Your task to perform on an android device: Search for razer kraken on target, select the first entry, add it to the cart, then select checkout. Image 0: 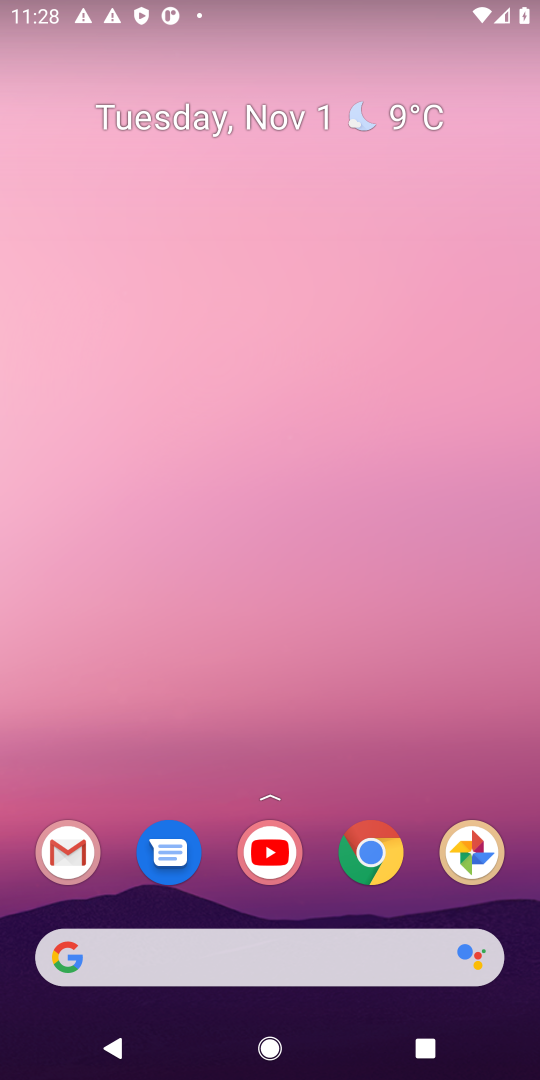
Step 0: drag from (323, 875) to (377, 364)
Your task to perform on an android device: Search for razer kraken on target, select the first entry, add it to the cart, then select checkout. Image 1: 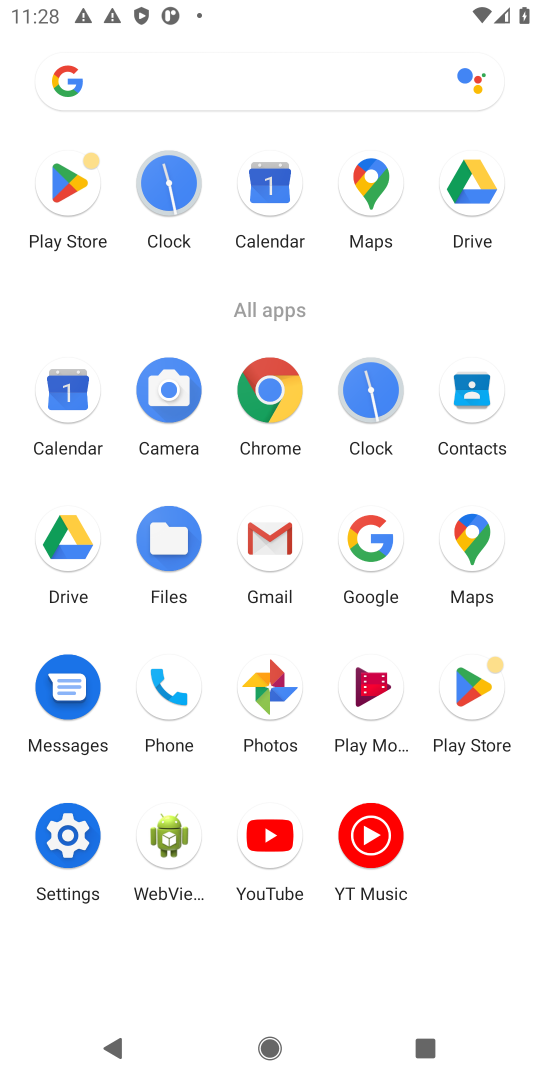
Step 1: click (373, 541)
Your task to perform on an android device: Search for razer kraken on target, select the first entry, add it to the cart, then select checkout. Image 2: 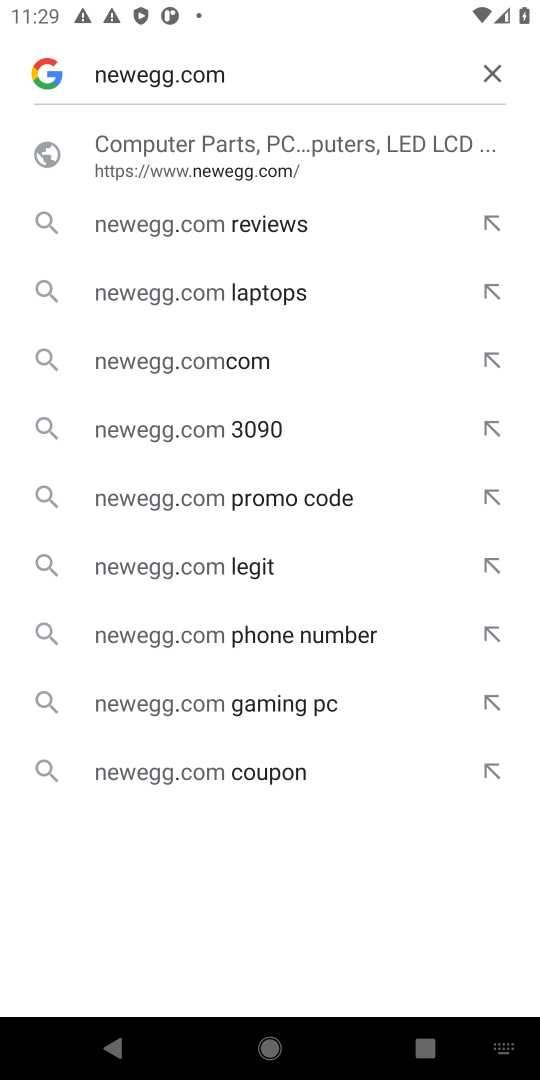
Step 2: click (481, 68)
Your task to perform on an android device: Search for razer kraken on target, select the first entry, add it to the cart, then select checkout. Image 3: 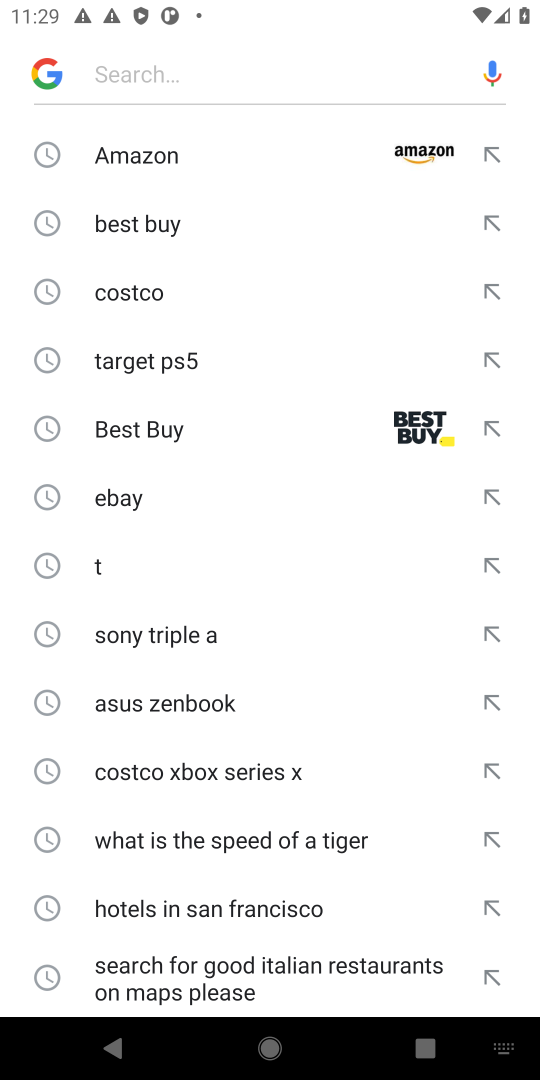
Step 3: type "target"
Your task to perform on an android device: Search for razer kraken on target, select the first entry, add it to the cart, then select checkout. Image 4: 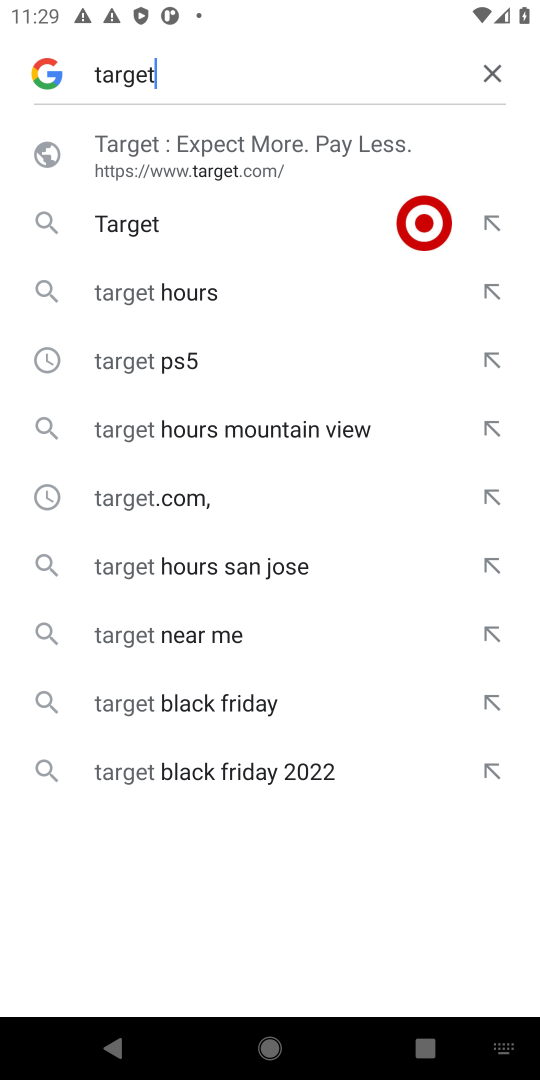
Step 4: click (317, 165)
Your task to perform on an android device: Search for razer kraken on target, select the first entry, add it to the cart, then select checkout. Image 5: 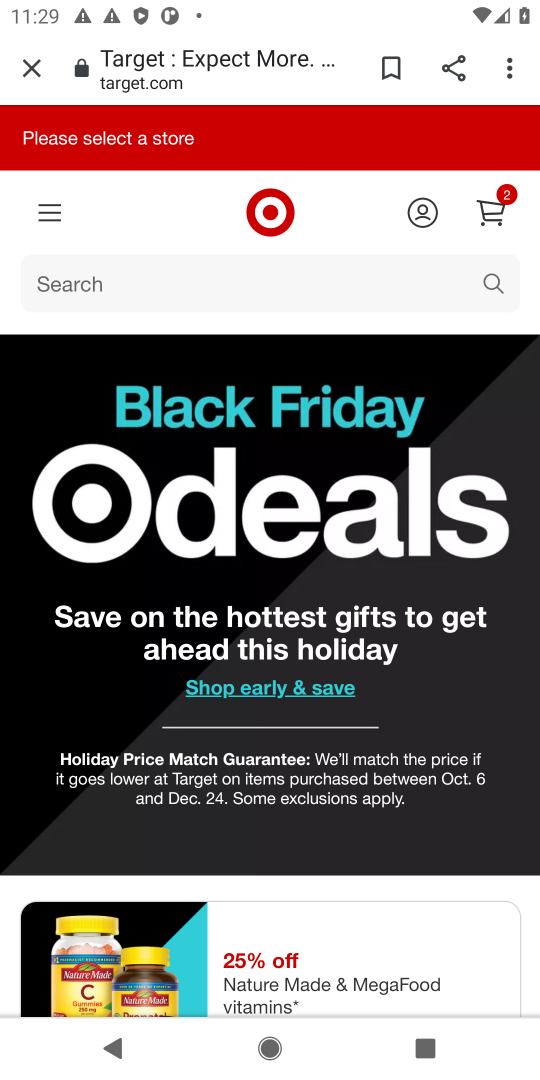
Step 5: click (189, 302)
Your task to perform on an android device: Search for razer kraken on target, select the first entry, add it to the cart, then select checkout. Image 6: 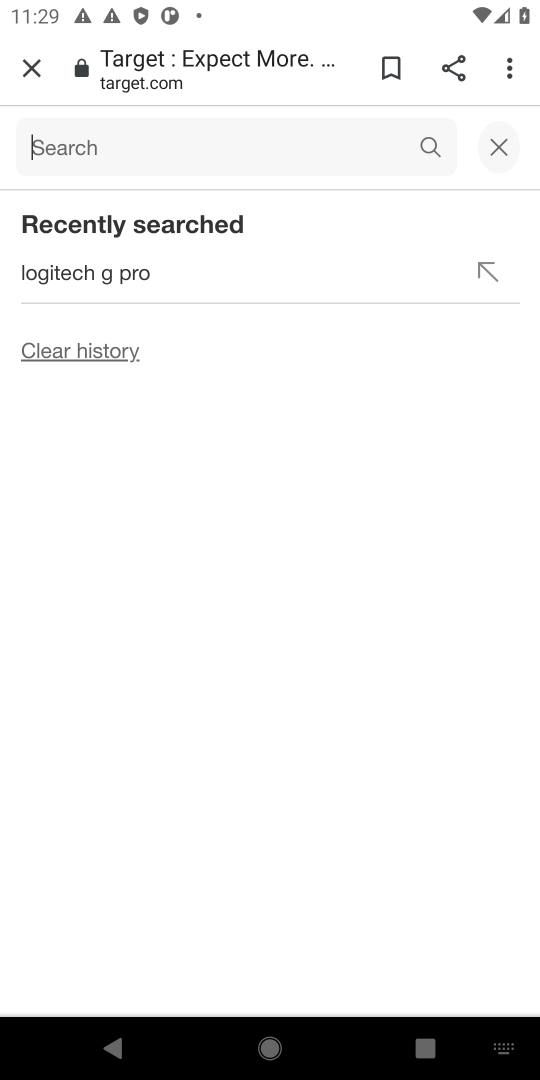
Step 6: type "razer kraken"
Your task to perform on an android device: Search for razer kraken on target, select the first entry, add it to the cart, then select checkout. Image 7: 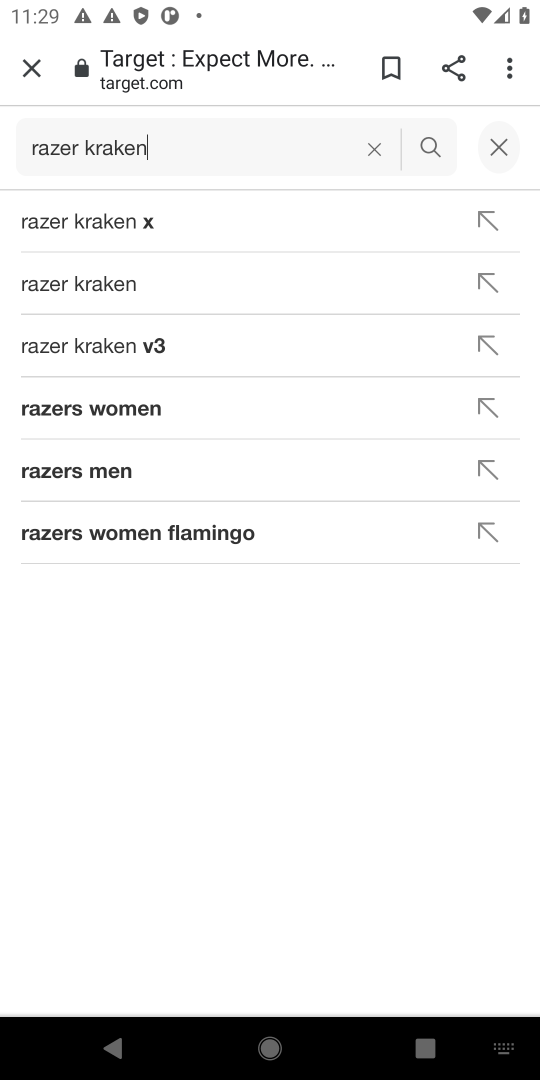
Step 7: click (126, 281)
Your task to perform on an android device: Search for razer kraken on target, select the first entry, add it to the cart, then select checkout. Image 8: 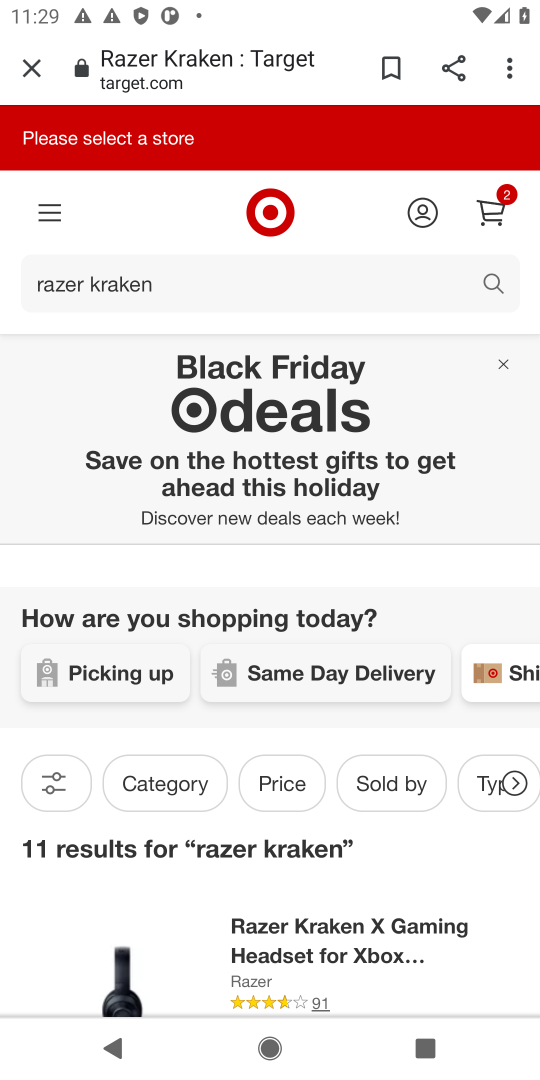
Step 8: drag from (216, 930) to (277, 396)
Your task to perform on an android device: Search for razer kraken on target, select the first entry, add it to the cart, then select checkout. Image 9: 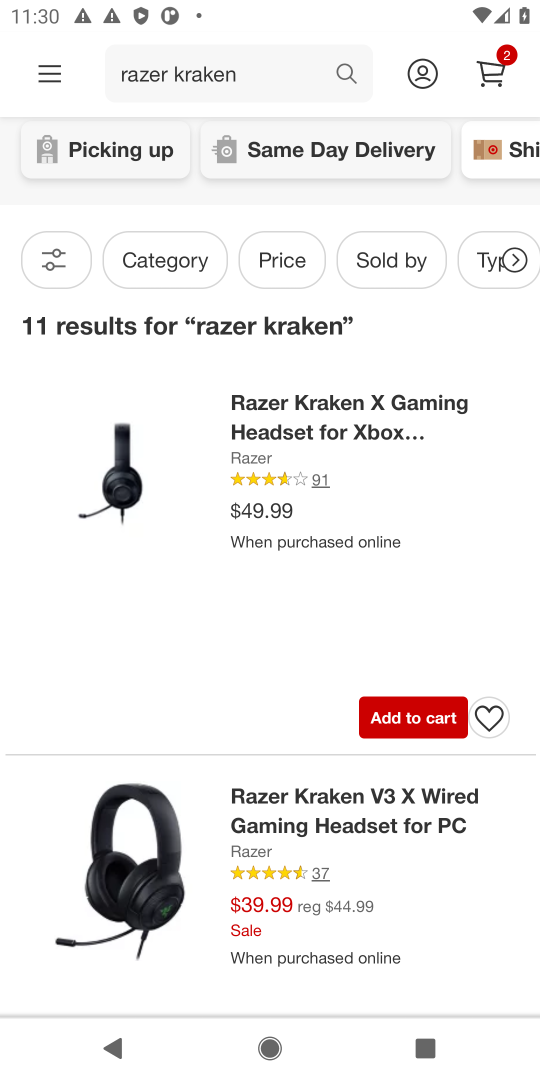
Step 9: click (293, 420)
Your task to perform on an android device: Search for razer kraken on target, select the first entry, add it to the cart, then select checkout. Image 10: 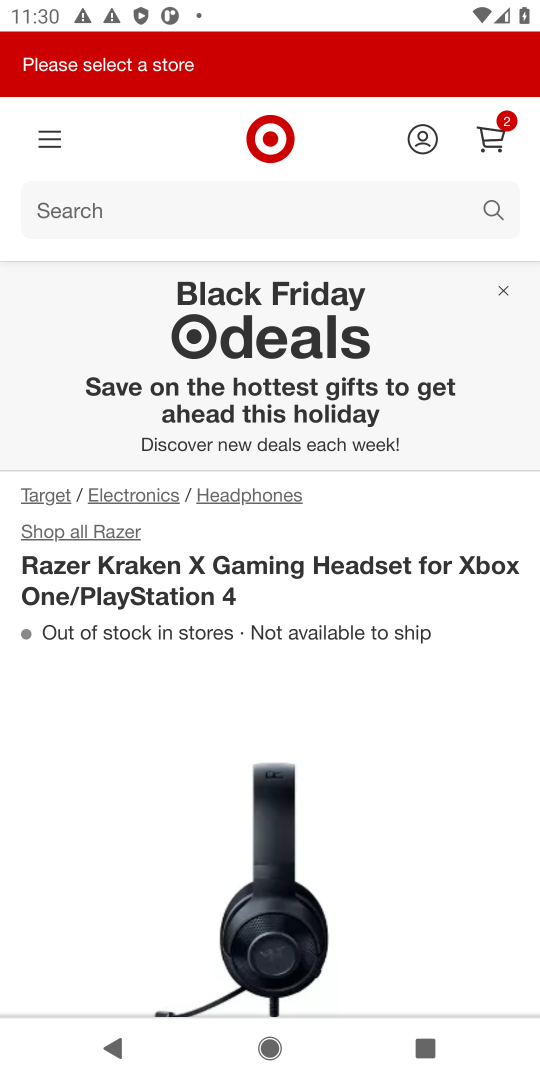
Step 10: drag from (353, 916) to (398, 352)
Your task to perform on an android device: Search for razer kraken on target, select the first entry, add it to the cart, then select checkout. Image 11: 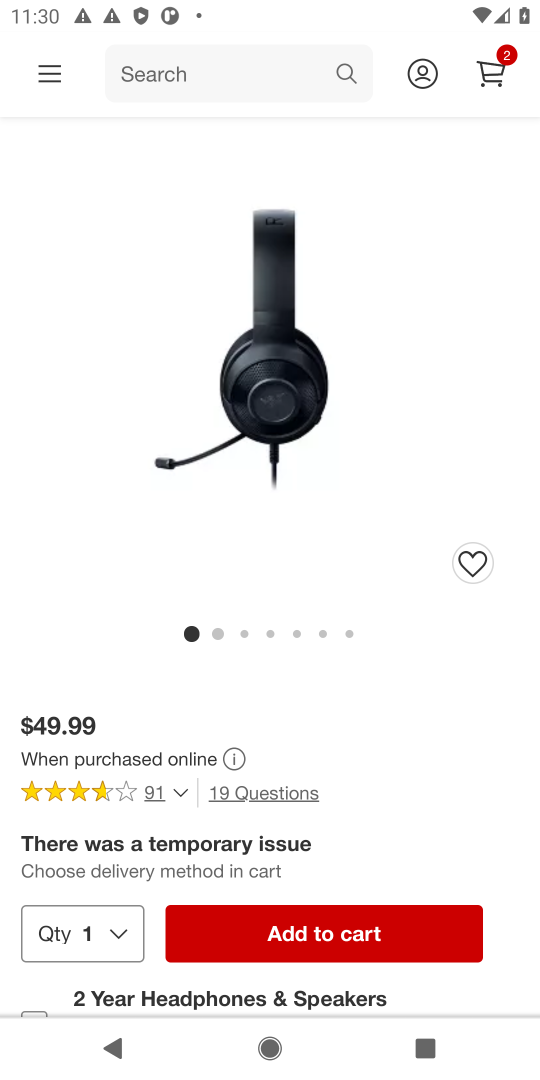
Step 11: drag from (397, 720) to (418, 322)
Your task to perform on an android device: Search for razer kraken on target, select the first entry, add it to the cart, then select checkout. Image 12: 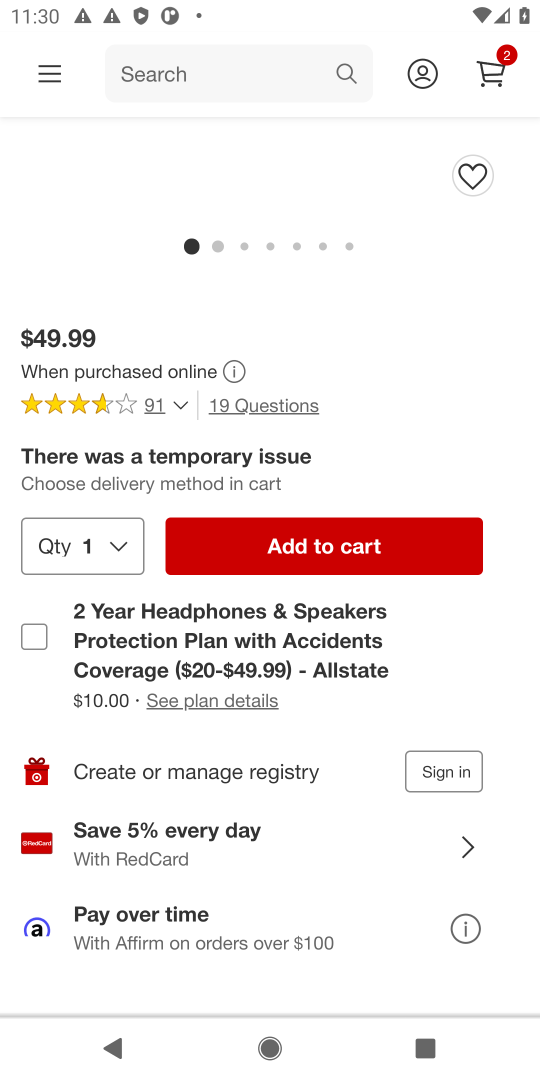
Step 12: click (428, 546)
Your task to perform on an android device: Search for razer kraken on target, select the first entry, add it to the cart, then select checkout. Image 13: 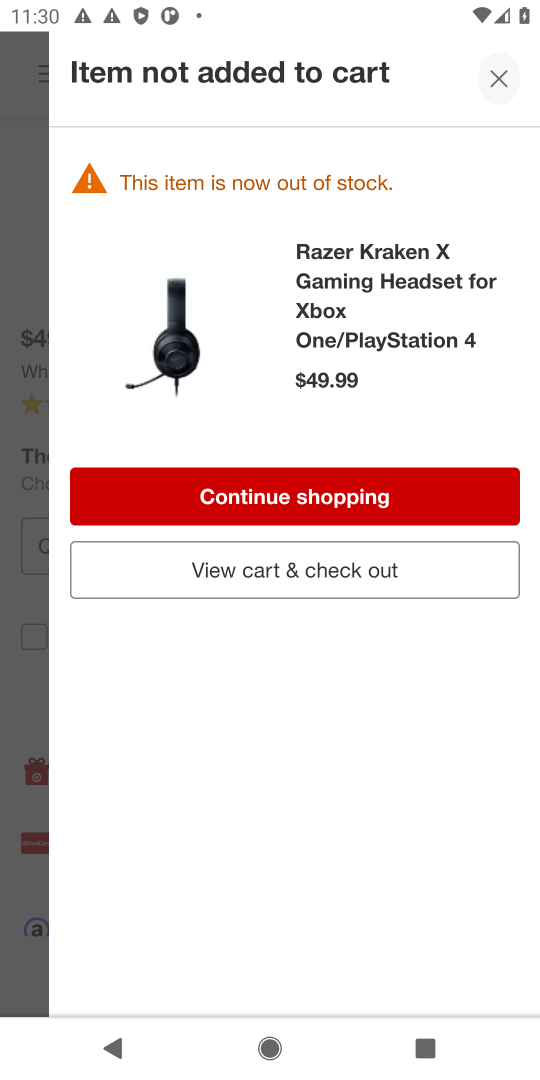
Step 13: click (413, 560)
Your task to perform on an android device: Search for razer kraken on target, select the first entry, add it to the cart, then select checkout. Image 14: 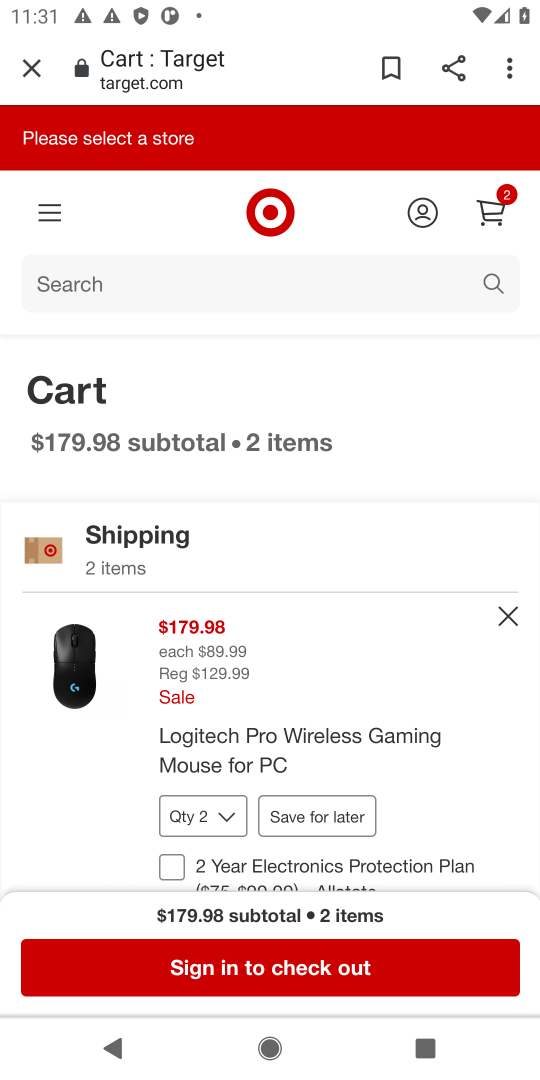
Step 14: task complete